Your task to perform on an android device: change the clock display to digital Image 0: 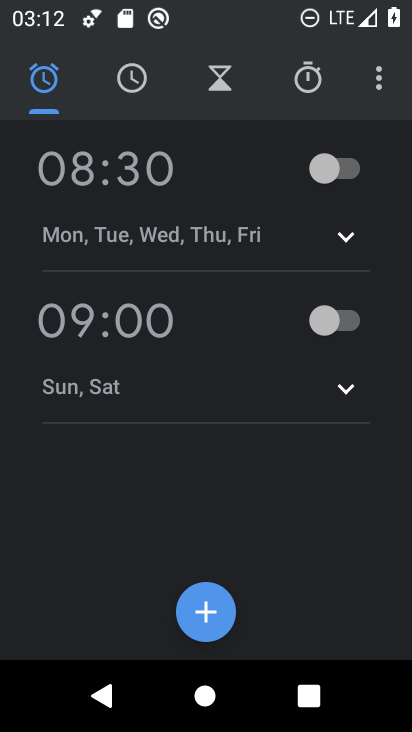
Step 0: press home button
Your task to perform on an android device: change the clock display to digital Image 1: 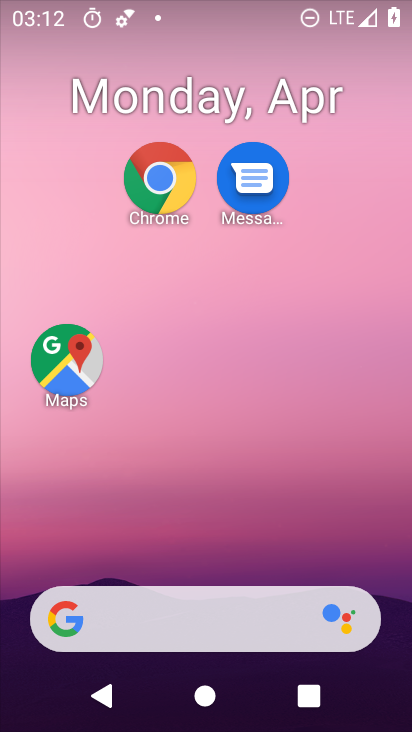
Step 1: drag from (276, 449) to (291, 13)
Your task to perform on an android device: change the clock display to digital Image 2: 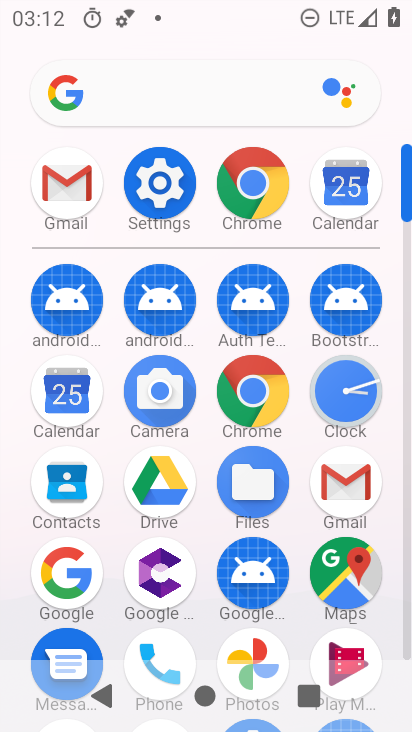
Step 2: click (352, 389)
Your task to perform on an android device: change the clock display to digital Image 3: 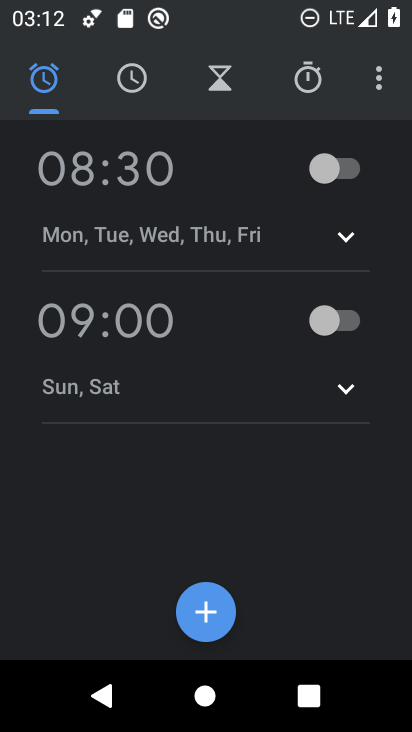
Step 3: click (378, 78)
Your task to perform on an android device: change the clock display to digital Image 4: 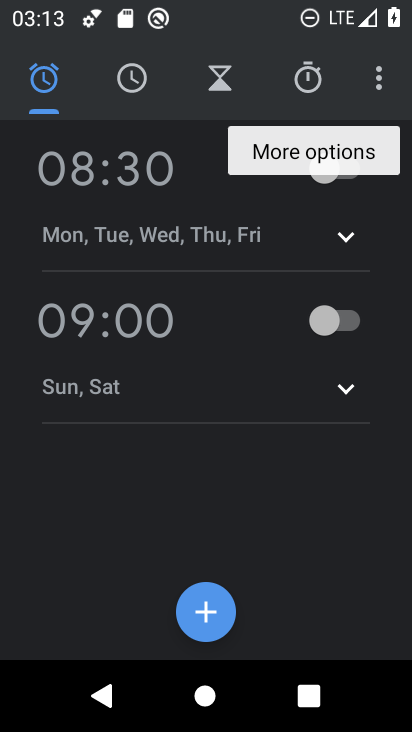
Step 4: click (377, 81)
Your task to perform on an android device: change the clock display to digital Image 5: 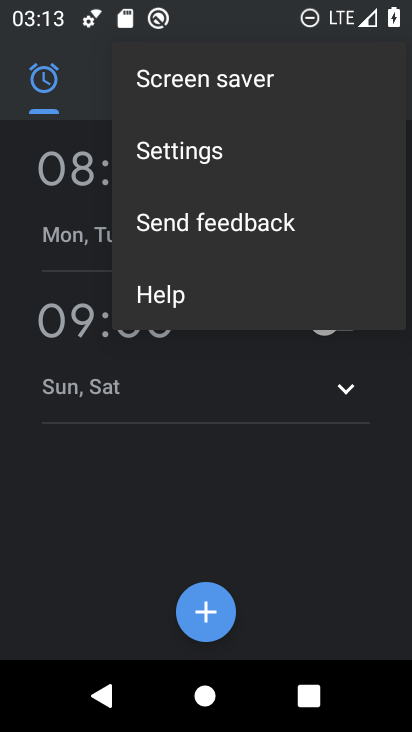
Step 5: click (246, 153)
Your task to perform on an android device: change the clock display to digital Image 6: 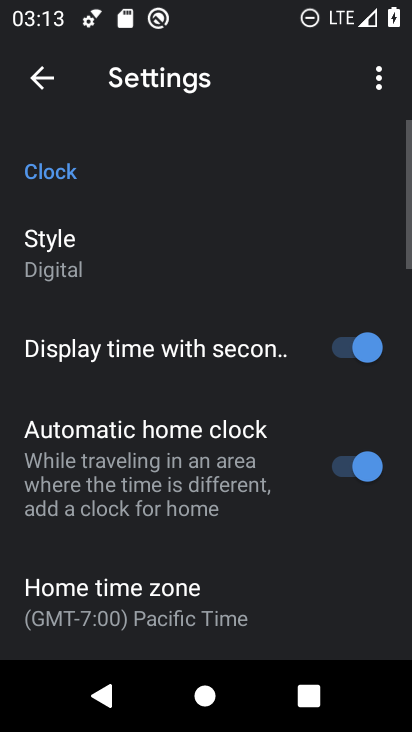
Step 6: task complete